Your task to perform on an android device: Open the map Image 0: 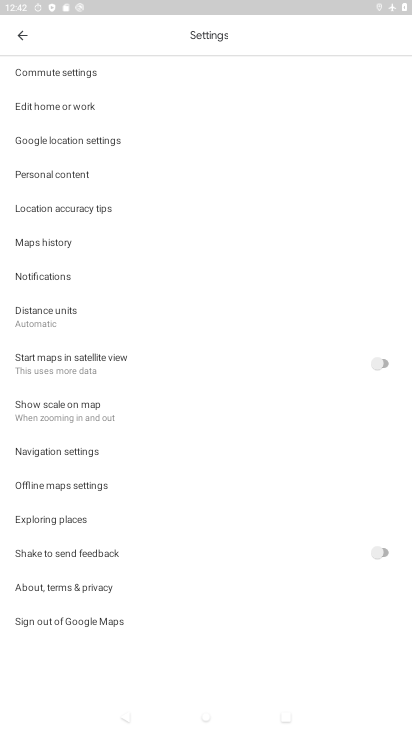
Step 0: press home button
Your task to perform on an android device: Open the map Image 1: 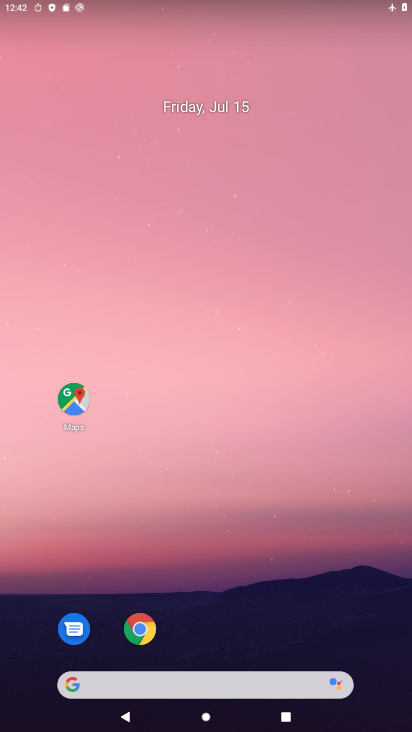
Step 1: click (76, 410)
Your task to perform on an android device: Open the map Image 2: 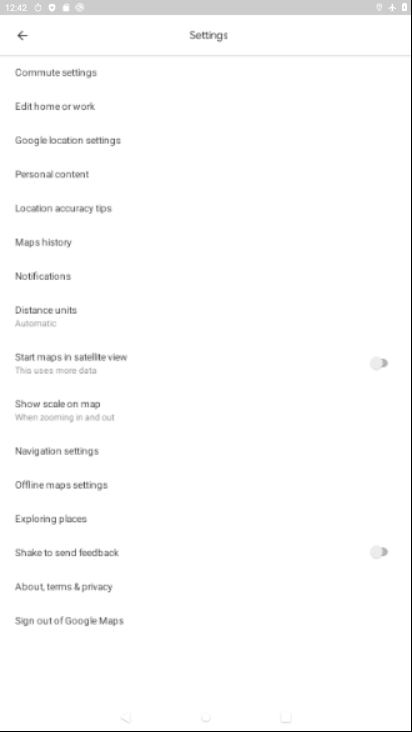
Step 2: click (19, 41)
Your task to perform on an android device: Open the map Image 3: 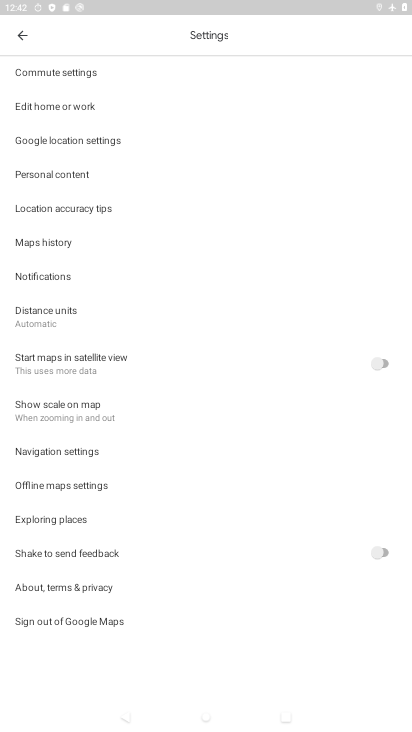
Step 3: click (23, 38)
Your task to perform on an android device: Open the map Image 4: 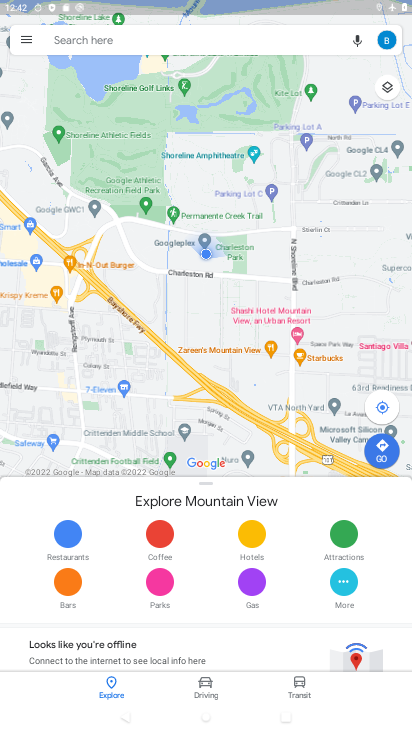
Step 4: task complete